Your task to perform on an android device: change the clock display to show seconds Image 0: 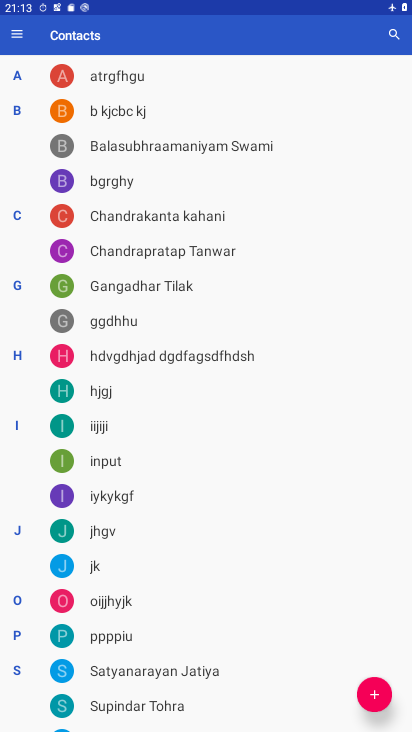
Step 0: press home button
Your task to perform on an android device: change the clock display to show seconds Image 1: 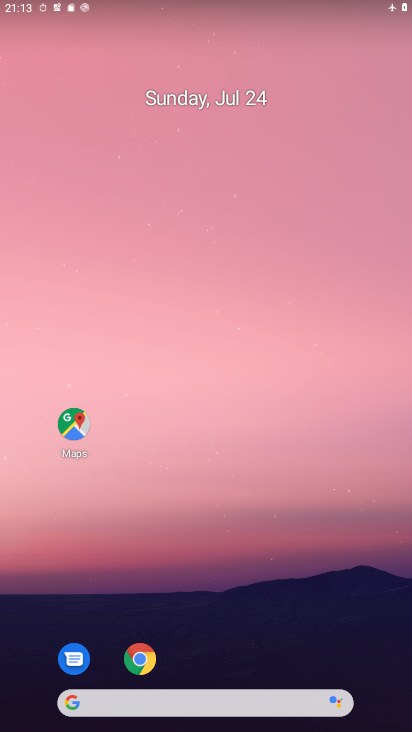
Step 1: drag from (241, 721) to (224, 253)
Your task to perform on an android device: change the clock display to show seconds Image 2: 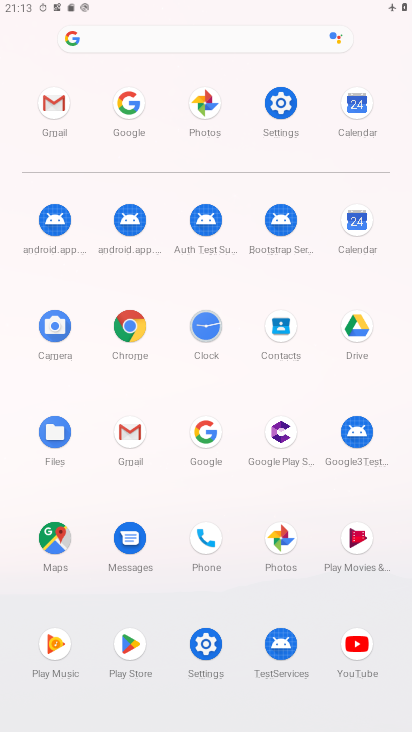
Step 2: click (212, 321)
Your task to perform on an android device: change the clock display to show seconds Image 3: 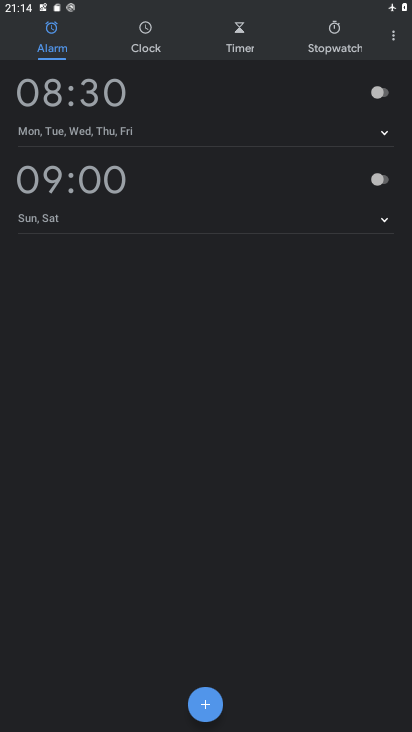
Step 3: click (396, 41)
Your task to perform on an android device: change the clock display to show seconds Image 4: 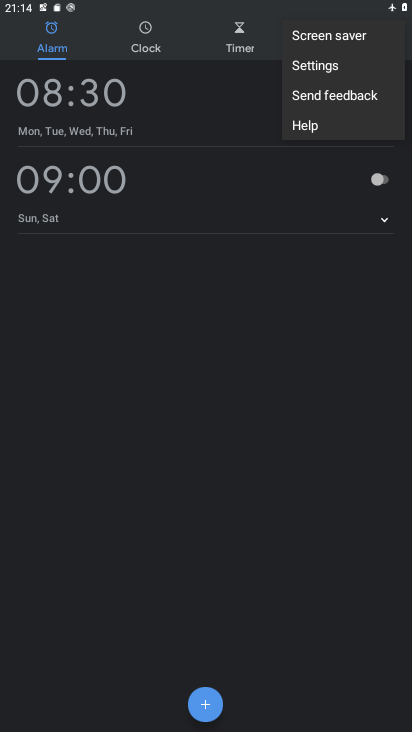
Step 4: click (330, 63)
Your task to perform on an android device: change the clock display to show seconds Image 5: 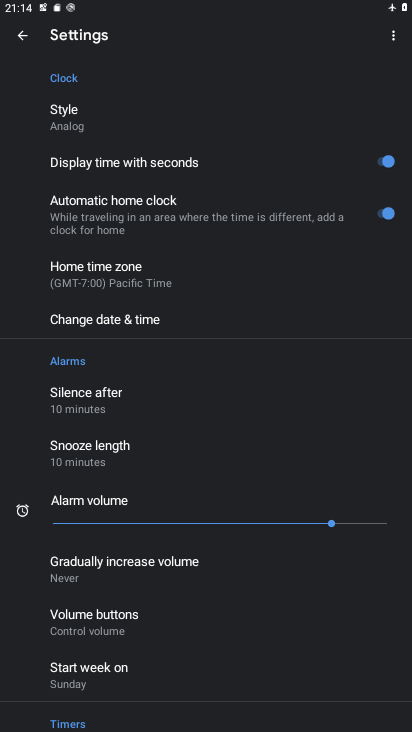
Step 5: task complete